Your task to perform on an android device: change the clock display to show seconds Image 0: 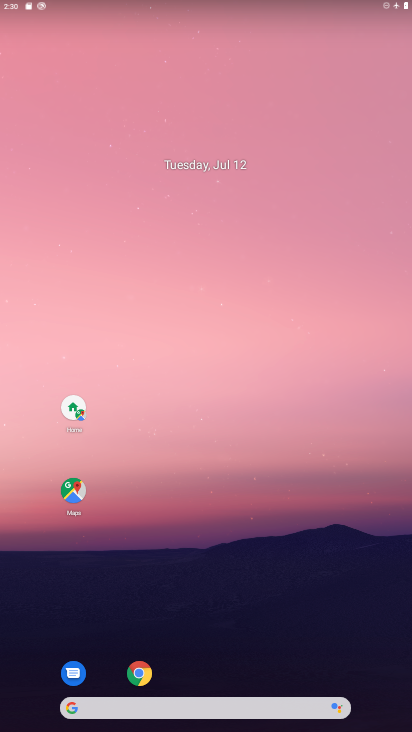
Step 0: drag from (254, 648) to (240, 201)
Your task to perform on an android device: change the clock display to show seconds Image 1: 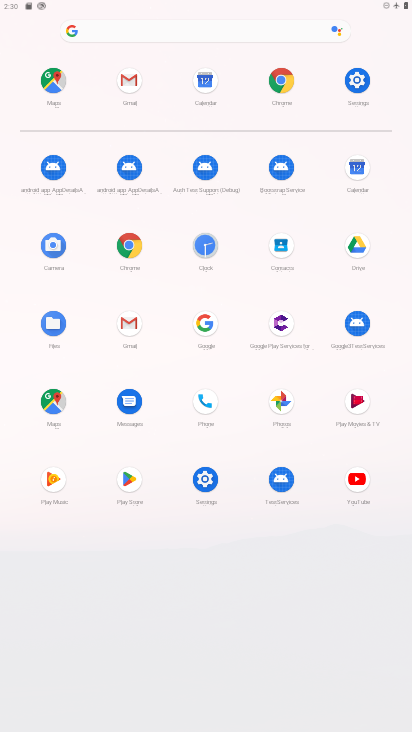
Step 1: click (196, 235)
Your task to perform on an android device: change the clock display to show seconds Image 2: 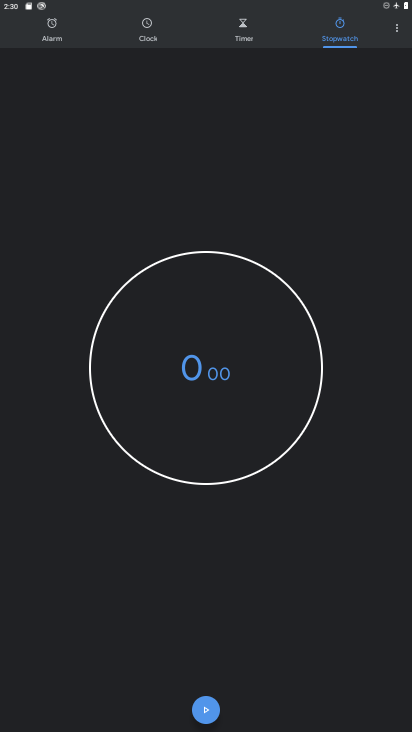
Step 2: click (394, 24)
Your task to perform on an android device: change the clock display to show seconds Image 3: 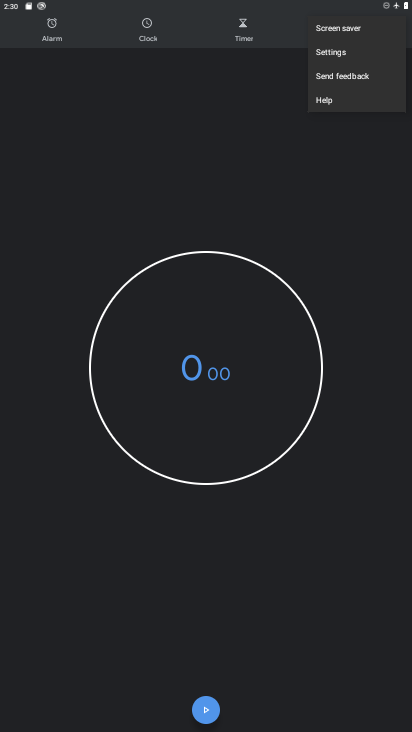
Step 3: click (338, 58)
Your task to perform on an android device: change the clock display to show seconds Image 4: 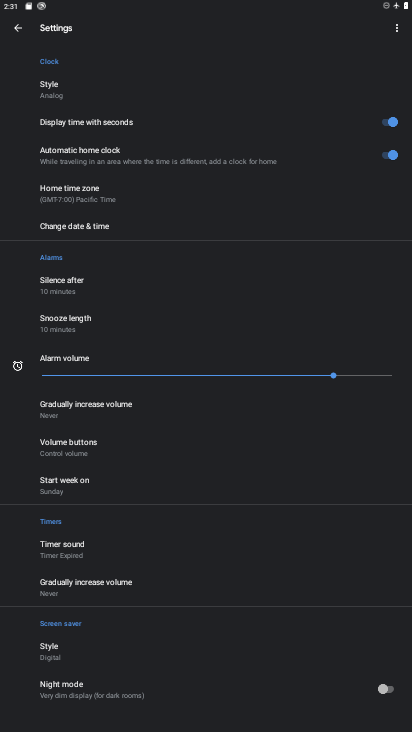
Step 4: task complete